Your task to perform on an android device: What's the news in Brunei? Image 0: 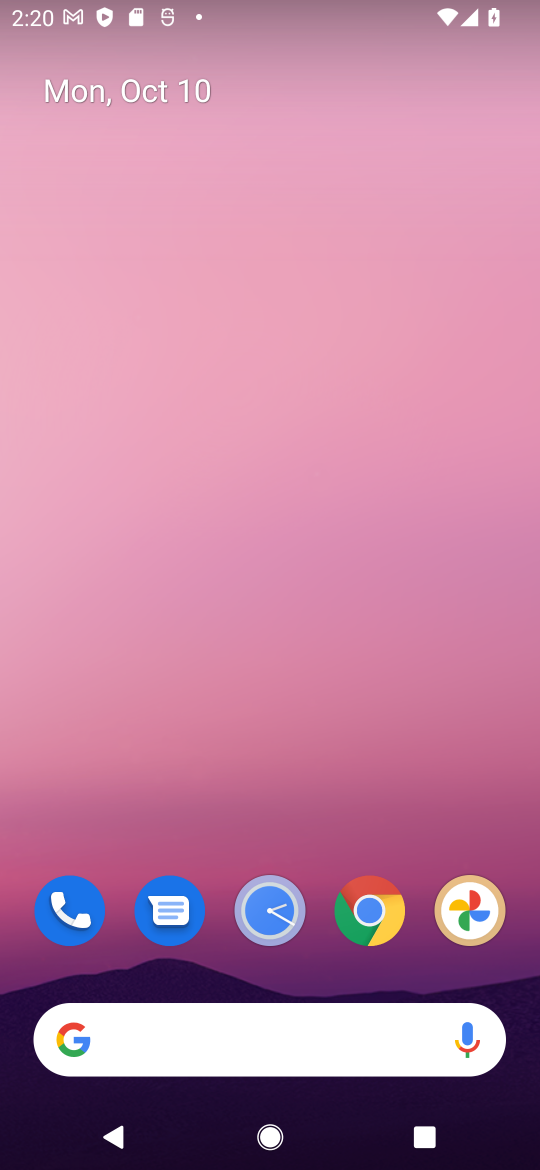
Step 0: click (344, 902)
Your task to perform on an android device: What's the news in Brunei? Image 1: 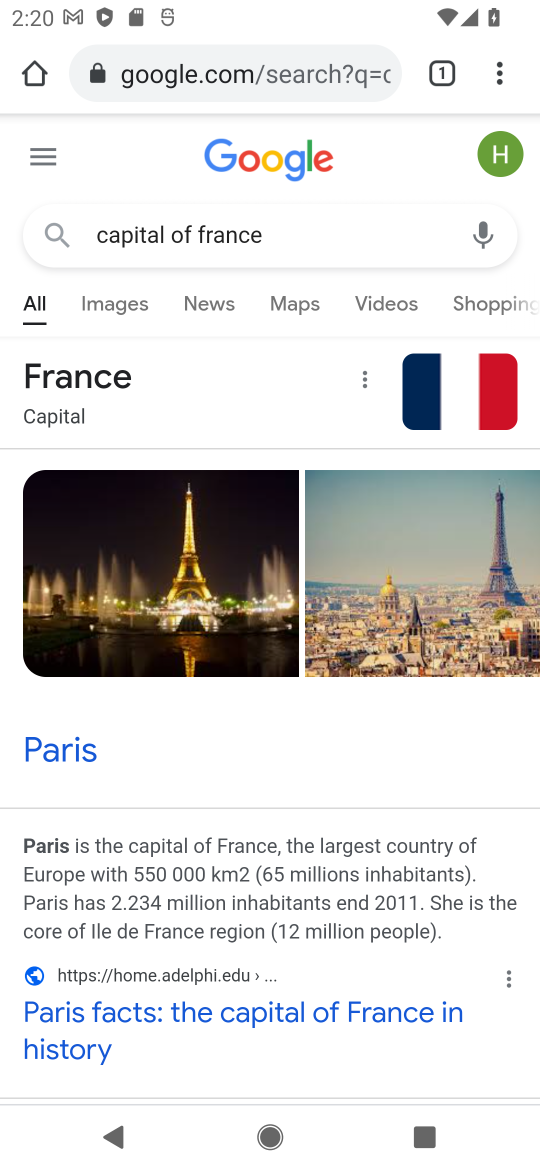
Step 1: click (250, 79)
Your task to perform on an android device: What's the news in Brunei? Image 2: 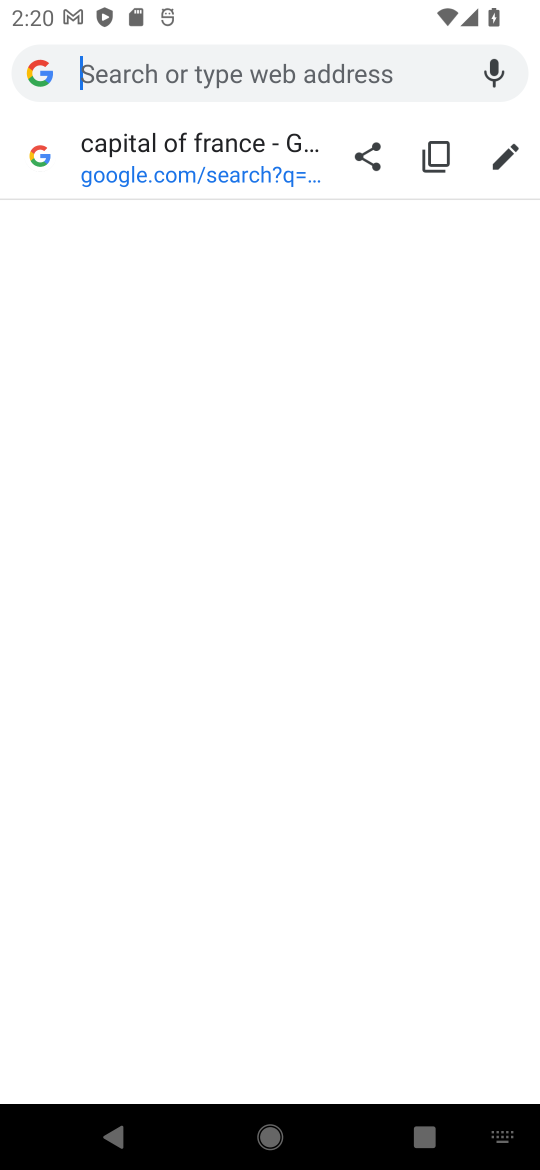
Step 2: type "What's the news in Brunei?"
Your task to perform on an android device: What's the news in Brunei? Image 3: 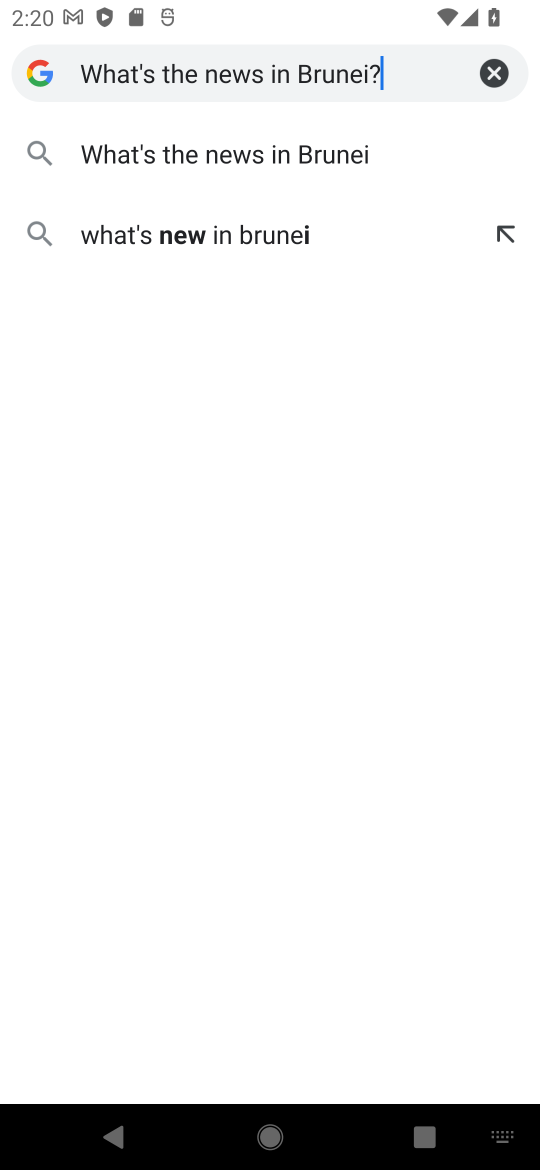
Step 3: click (218, 76)
Your task to perform on an android device: What's the news in Brunei? Image 4: 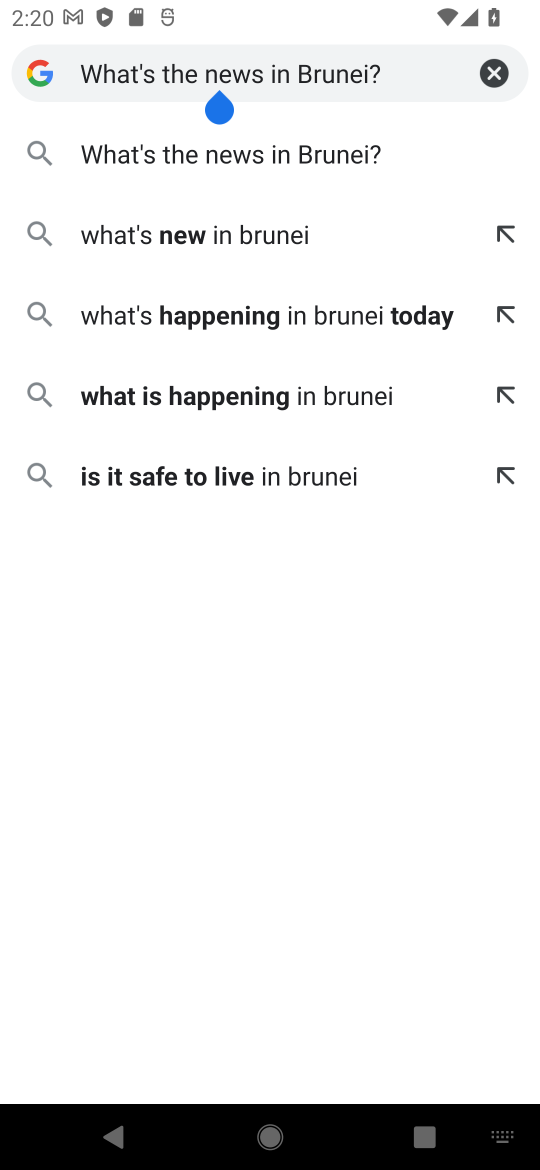
Step 4: click (241, 160)
Your task to perform on an android device: What's the news in Brunei? Image 5: 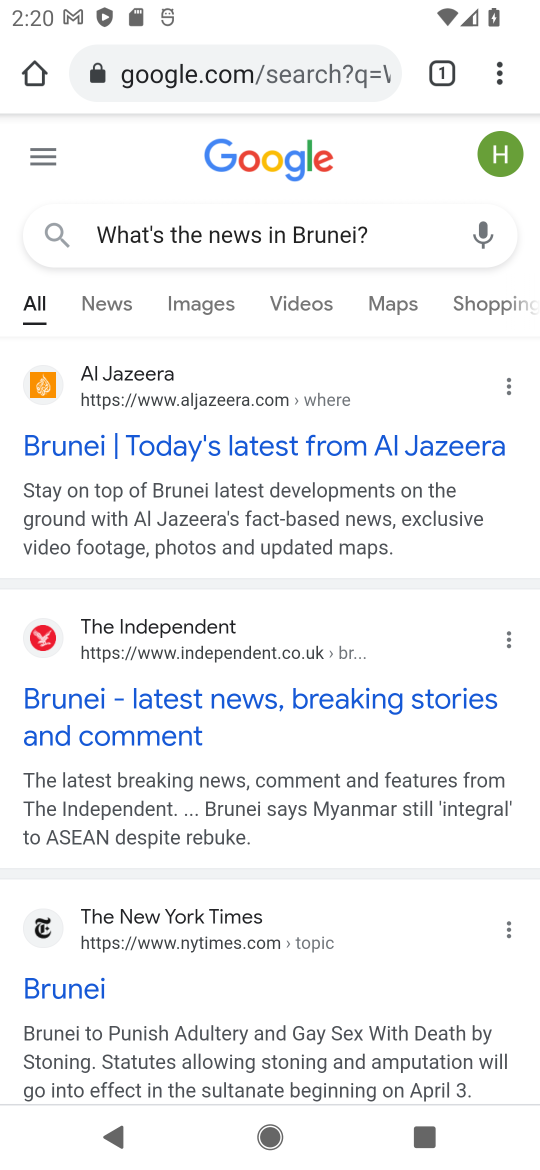
Step 5: click (299, 455)
Your task to perform on an android device: What's the news in Brunei? Image 6: 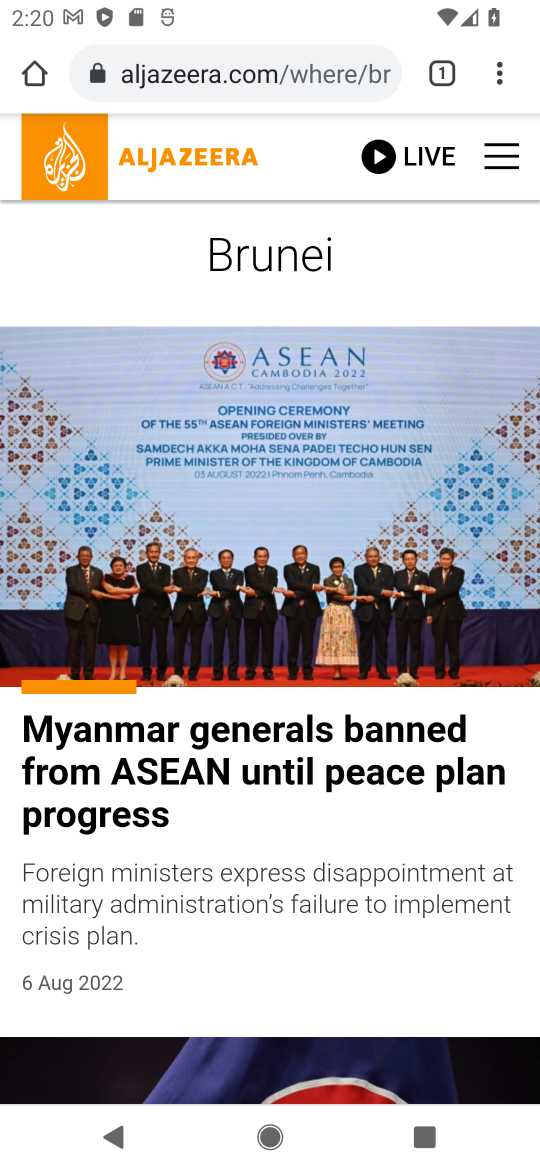
Step 6: task complete